Your task to perform on an android device: turn off sleep mode Image 0: 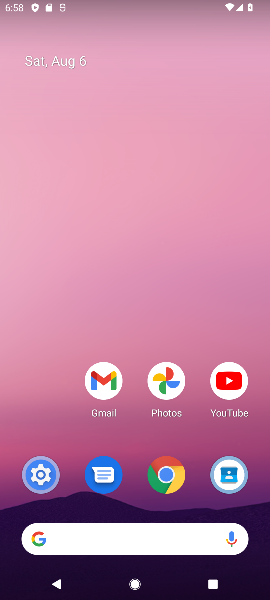
Step 0: click (44, 461)
Your task to perform on an android device: turn off sleep mode Image 1: 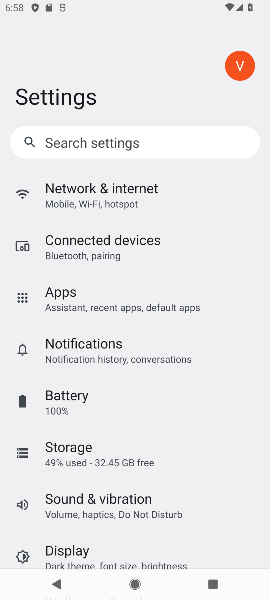
Step 1: drag from (111, 520) to (112, 291)
Your task to perform on an android device: turn off sleep mode Image 2: 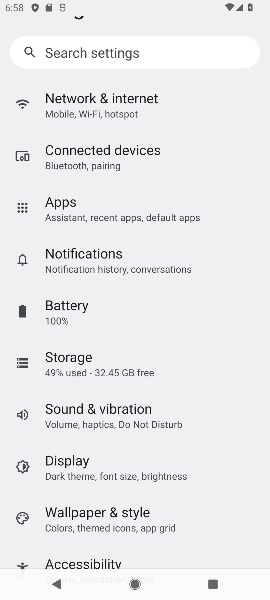
Step 2: click (98, 486)
Your task to perform on an android device: turn off sleep mode Image 3: 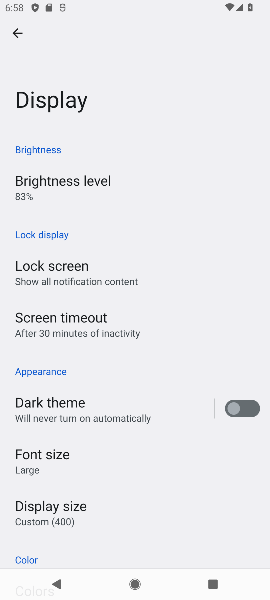
Step 3: click (98, 333)
Your task to perform on an android device: turn off sleep mode Image 4: 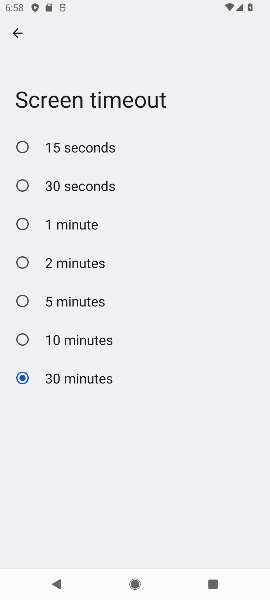
Step 4: click (76, 146)
Your task to perform on an android device: turn off sleep mode Image 5: 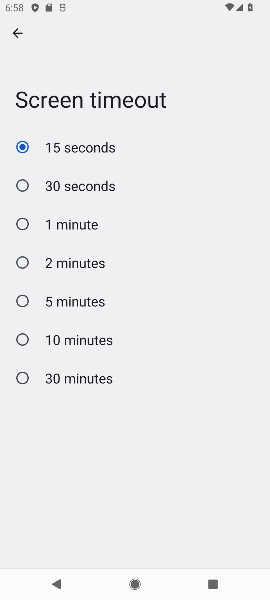
Step 5: task complete